Your task to perform on an android device: toggle improve location accuracy Image 0: 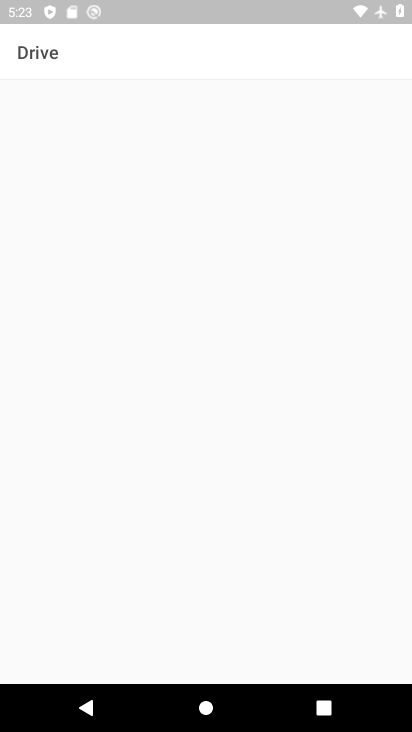
Step 0: press home button
Your task to perform on an android device: toggle improve location accuracy Image 1: 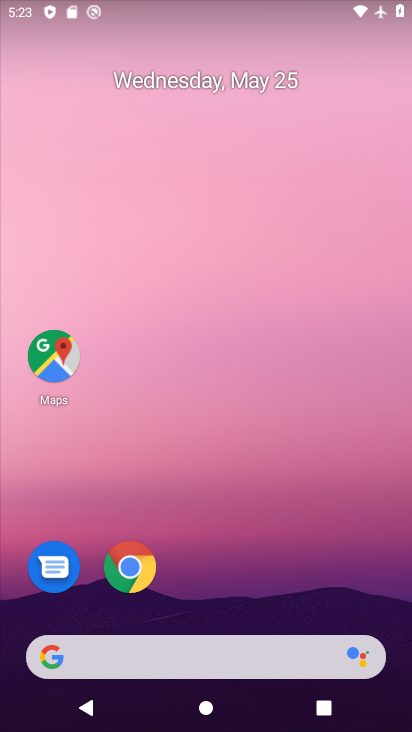
Step 1: drag from (277, 581) to (226, 6)
Your task to perform on an android device: toggle improve location accuracy Image 2: 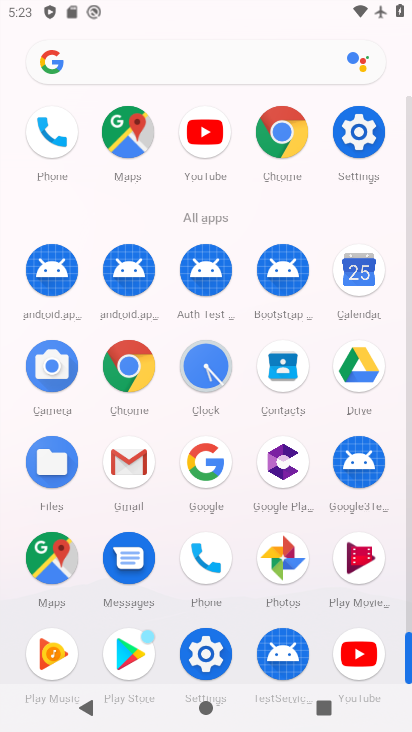
Step 2: drag from (1, 618) to (26, 241)
Your task to perform on an android device: toggle improve location accuracy Image 3: 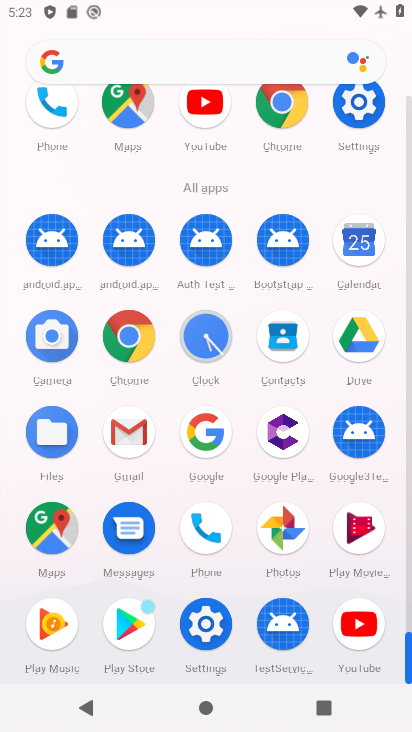
Step 3: drag from (12, 566) to (16, 270)
Your task to perform on an android device: toggle improve location accuracy Image 4: 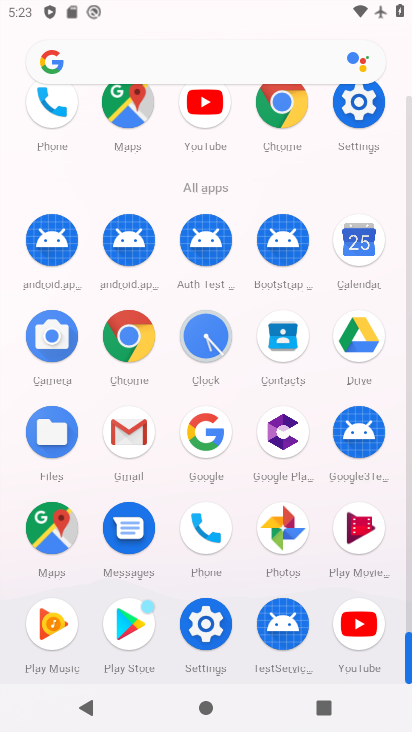
Step 4: click (204, 622)
Your task to perform on an android device: toggle improve location accuracy Image 5: 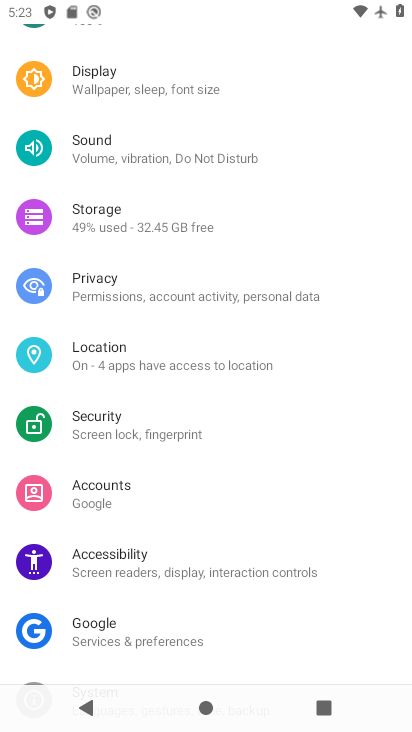
Step 5: drag from (209, 659) to (209, 121)
Your task to perform on an android device: toggle improve location accuracy Image 6: 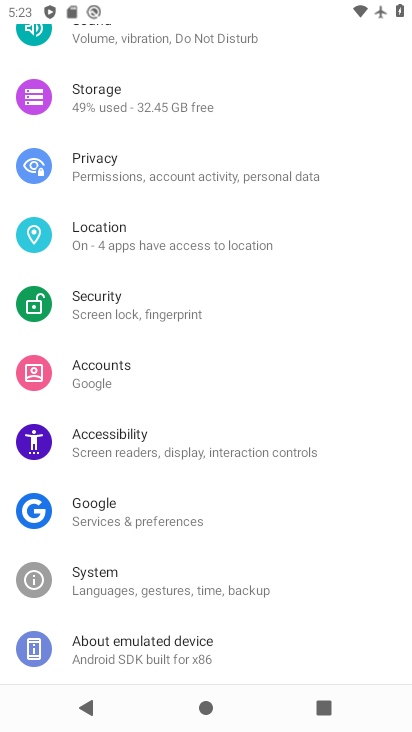
Step 6: click (132, 235)
Your task to perform on an android device: toggle improve location accuracy Image 7: 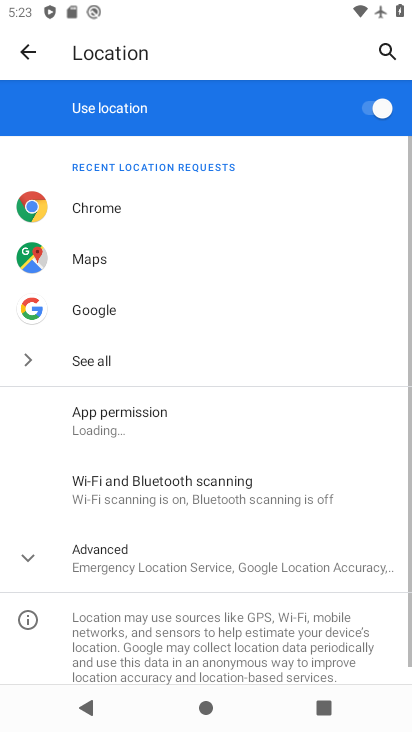
Step 7: click (78, 572)
Your task to perform on an android device: toggle improve location accuracy Image 8: 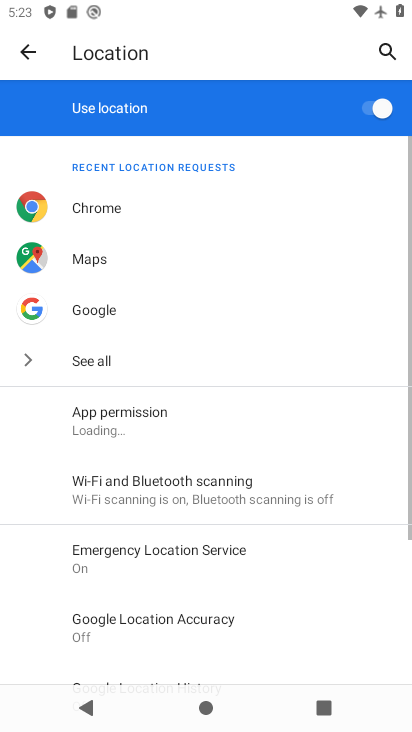
Step 8: drag from (281, 618) to (257, 265)
Your task to perform on an android device: toggle improve location accuracy Image 9: 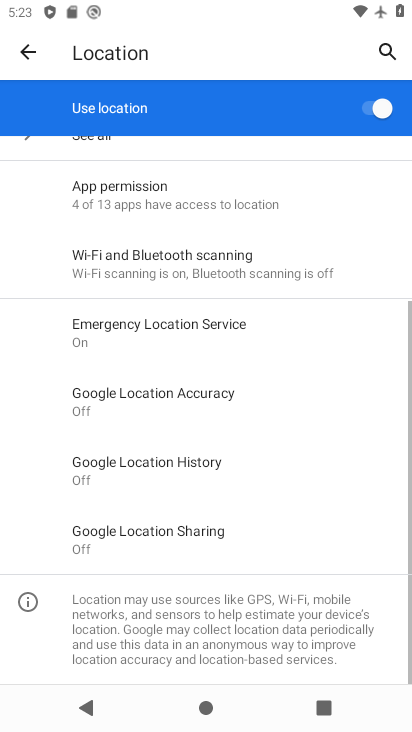
Step 9: click (200, 389)
Your task to perform on an android device: toggle improve location accuracy Image 10: 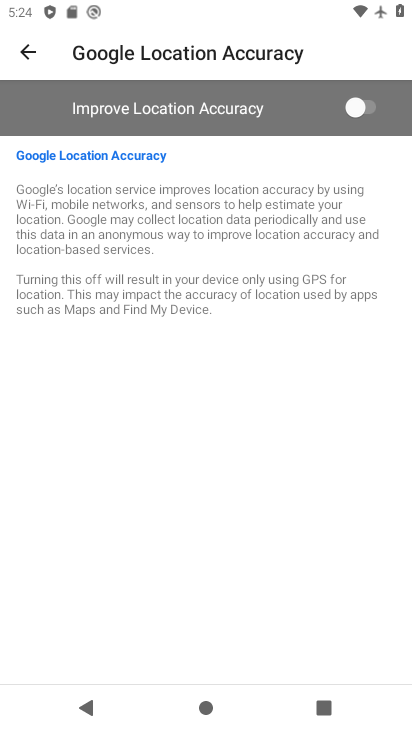
Step 10: click (339, 101)
Your task to perform on an android device: toggle improve location accuracy Image 11: 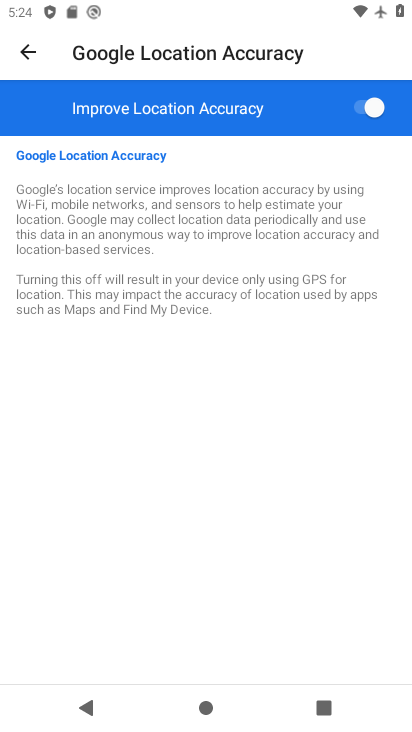
Step 11: task complete